Your task to perform on an android device: Open calendar and show me the first week of next month Image 0: 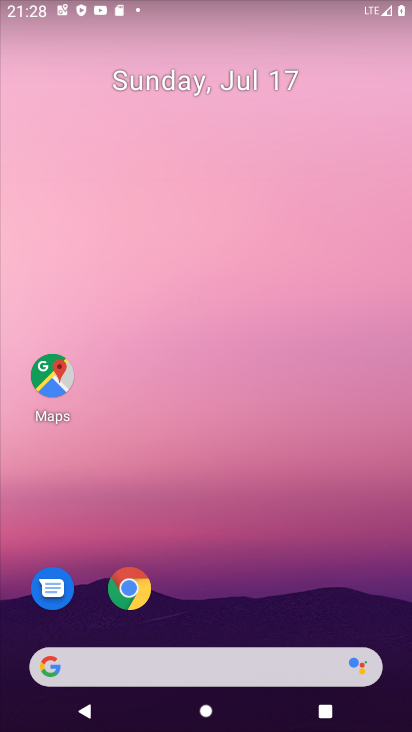
Step 0: drag from (306, 594) to (297, 228)
Your task to perform on an android device: Open calendar and show me the first week of next month Image 1: 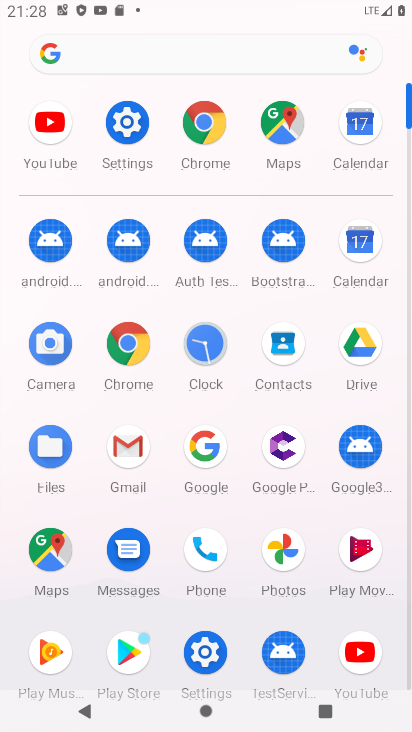
Step 1: click (345, 259)
Your task to perform on an android device: Open calendar and show me the first week of next month Image 2: 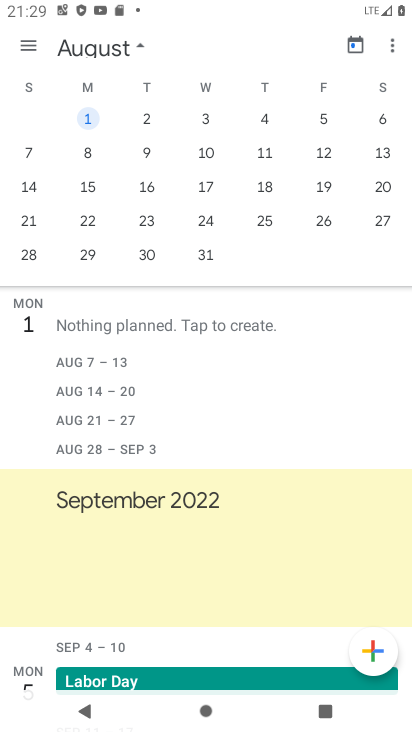
Step 2: task complete